Your task to perform on an android device: turn on javascript in the chrome app Image 0: 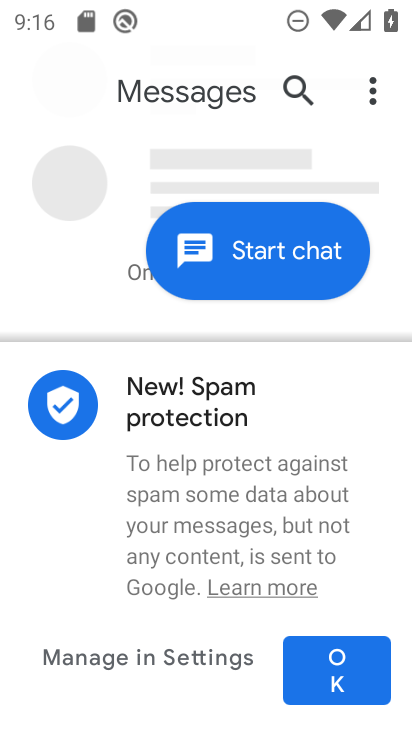
Step 0: press home button
Your task to perform on an android device: turn on javascript in the chrome app Image 1: 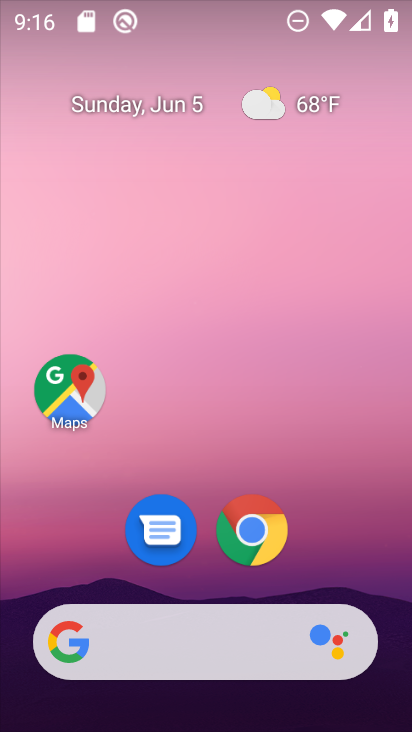
Step 1: click (251, 533)
Your task to perform on an android device: turn on javascript in the chrome app Image 2: 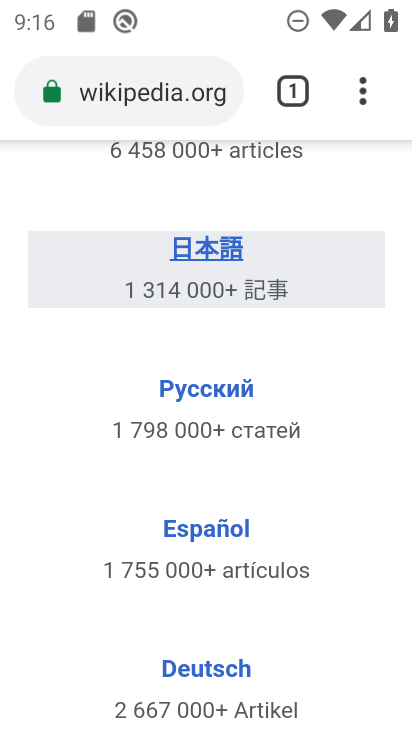
Step 2: click (361, 101)
Your task to perform on an android device: turn on javascript in the chrome app Image 3: 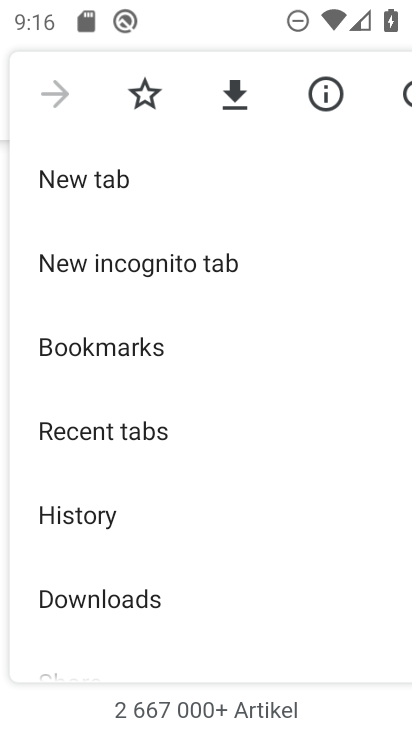
Step 3: drag from (187, 646) to (271, 205)
Your task to perform on an android device: turn on javascript in the chrome app Image 4: 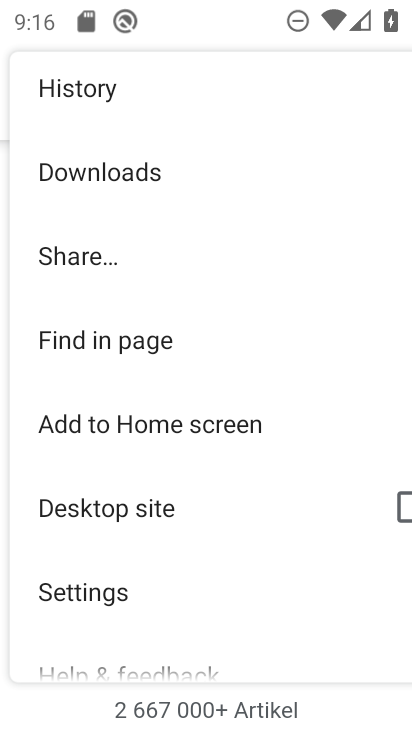
Step 4: click (102, 601)
Your task to perform on an android device: turn on javascript in the chrome app Image 5: 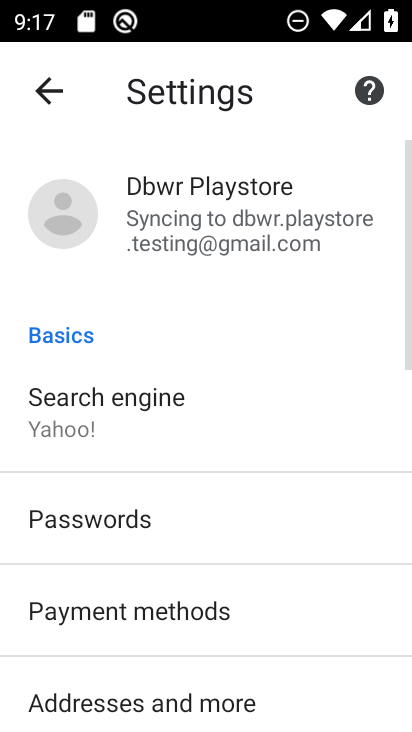
Step 5: drag from (264, 646) to (228, 186)
Your task to perform on an android device: turn on javascript in the chrome app Image 6: 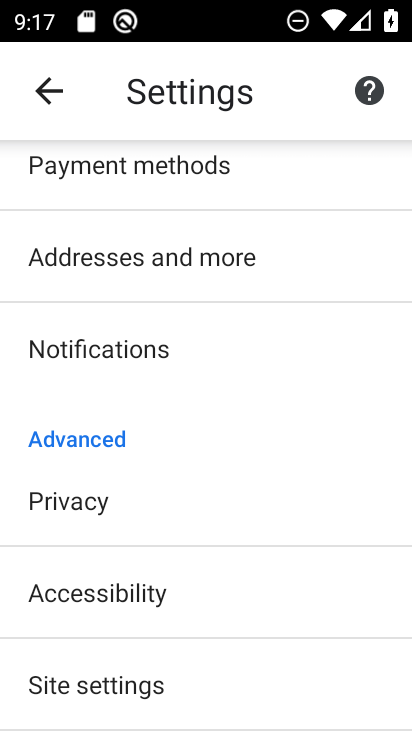
Step 6: drag from (199, 626) to (215, 354)
Your task to perform on an android device: turn on javascript in the chrome app Image 7: 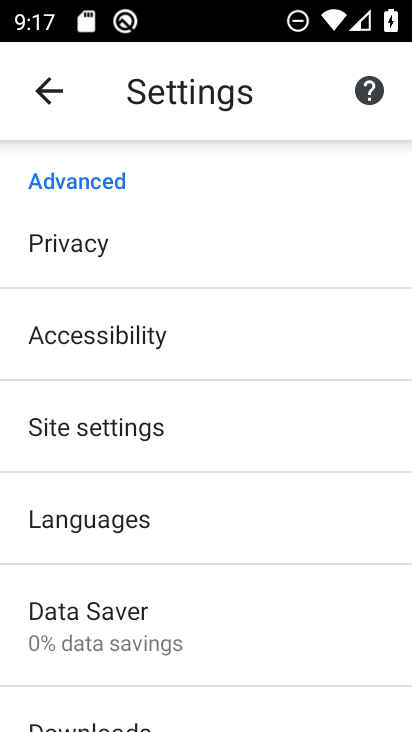
Step 7: click (75, 429)
Your task to perform on an android device: turn on javascript in the chrome app Image 8: 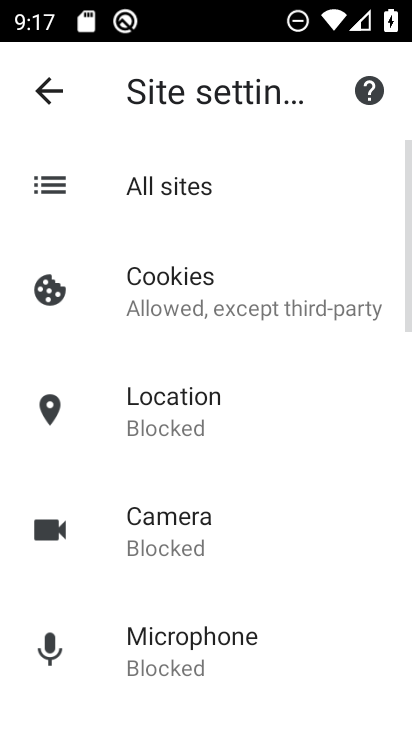
Step 8: drag from (333, 678) to (282, 203)
Your task to perform on an android device: turn on javascript in the chrome app Image 9: 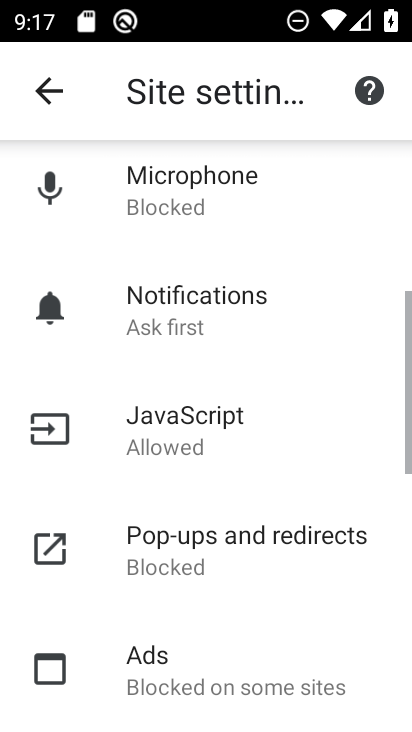
Step 9: click (160, 410)
Your task to perform on an android device: turn on javascript in the chrome app Image 10: 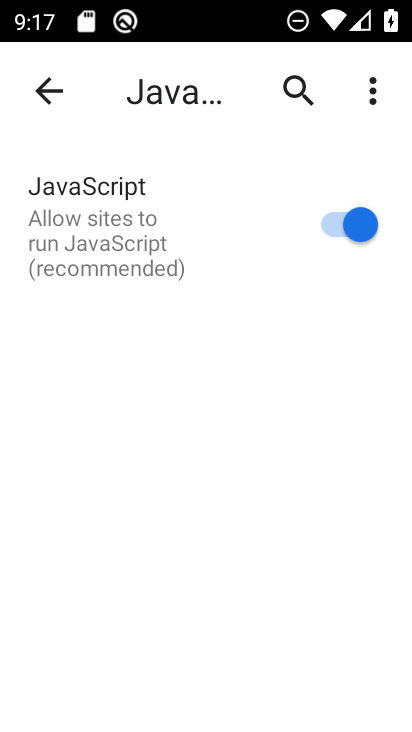
Step 10: task complete